Your task to perform on an android device: Open Yahoo.com Image 0: 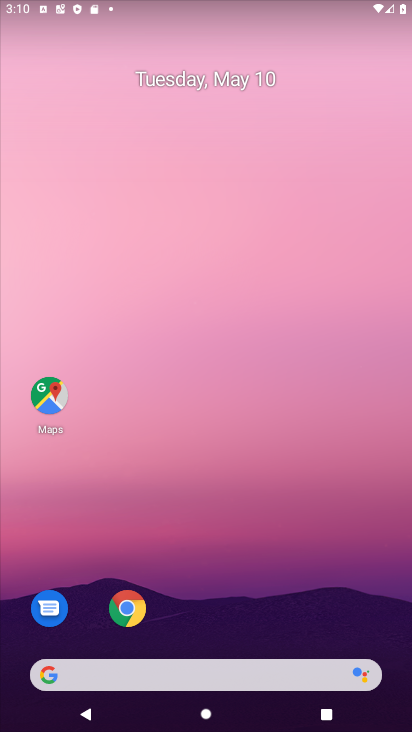
Step 0: click (124, 611)
Your task to perform on an android device: Open Yahoo.com Image 1: 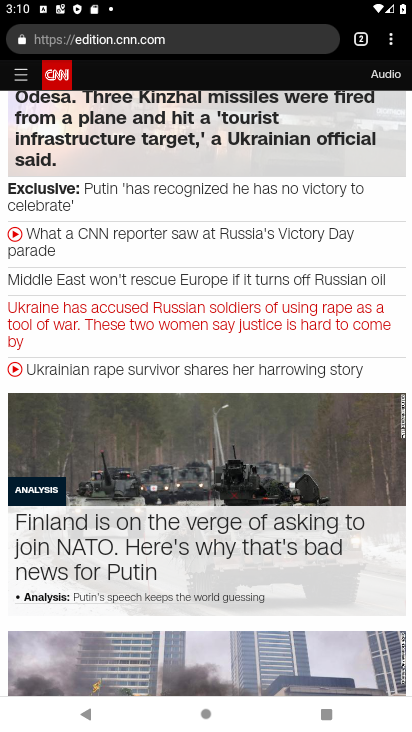
Step 1: click (169, 34)
Your task to perform on an android device: Open Yahoo.com Image 2: 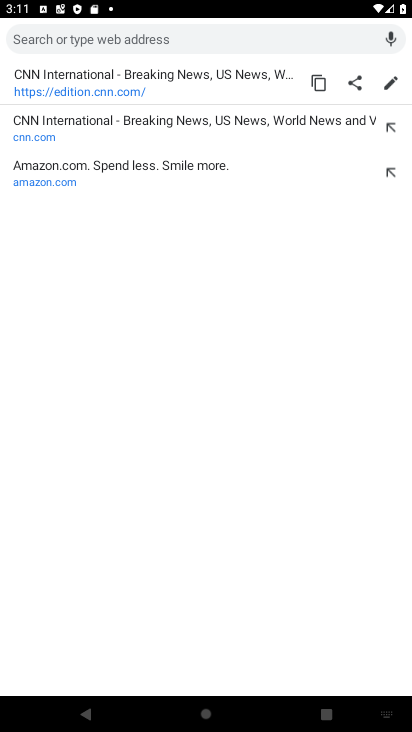
Step 2: type "yahoo.com"
Your task to perform on an android device: Open Yahoo.com Image 3: 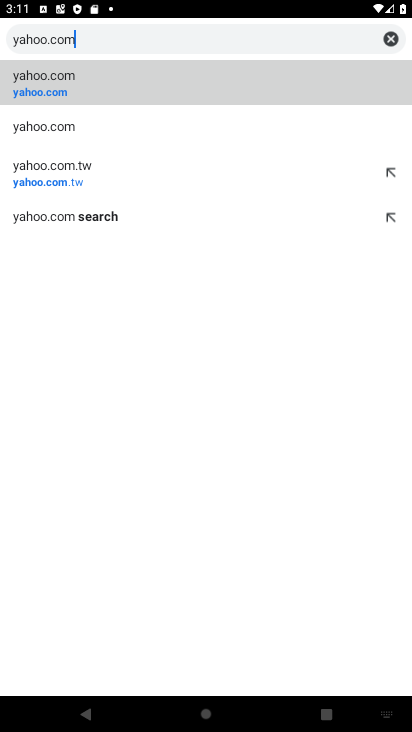
Step 3: click (47, 89)
Your task to perform on an android device: Open Yahoo.com Image 4: 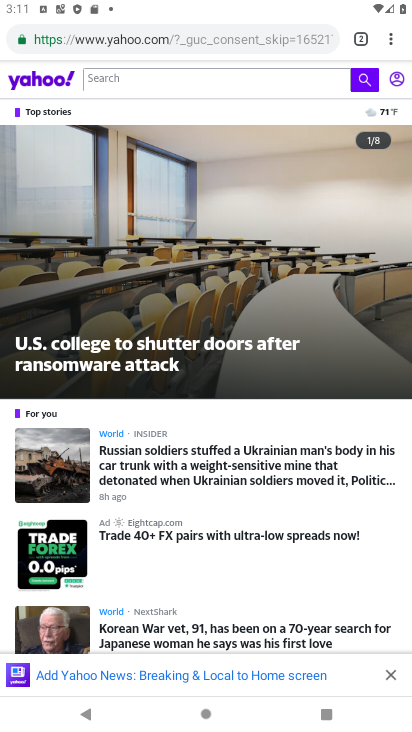
Step 4: task complete